Your task to perform on an android device: Open display settings Image 0: 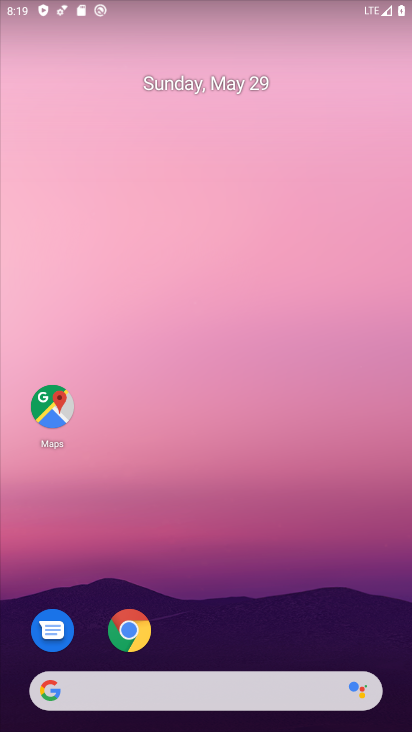
Step 0: drag from (210, 665) to (109, 3)
Your task to perform on an android device: Open display settings Image 1: 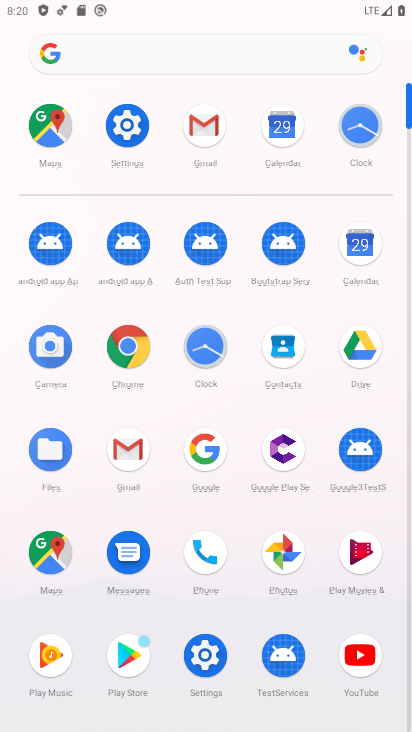
Step 1: click (128, 93)
Your task to perform on an android device: Open display settings Image 2: 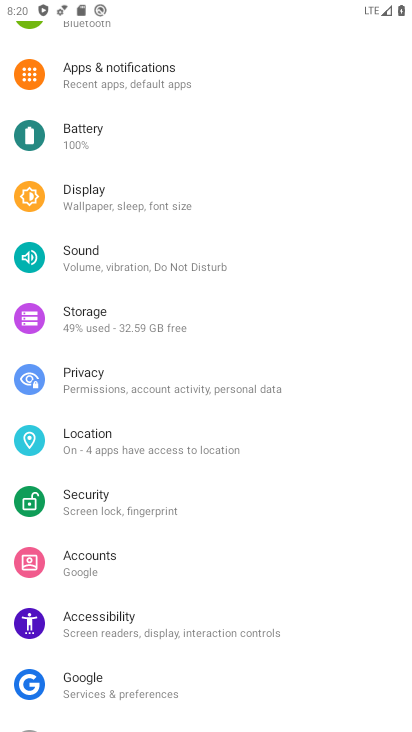
Step 2: click (118, 189)
Your task to perform on an android device: Open display settings Image 3: 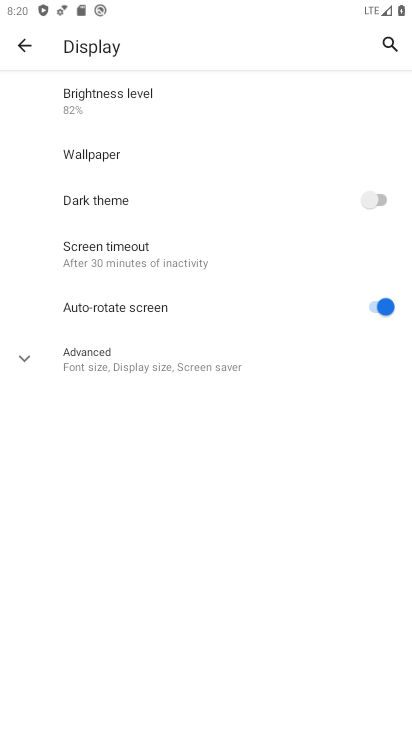
Step 3: task complete